Your task to perform on an android device: check battery use Image 0: 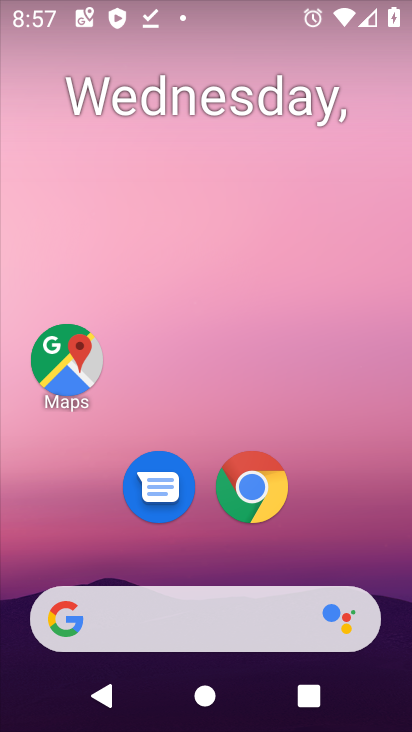
Step 0: drag from (247, 634) to (158, 190)
Your task to perform on an android device: check battery use Image 1: 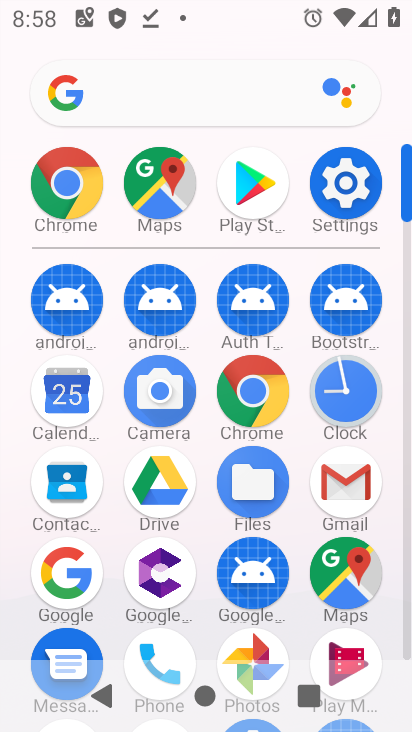
Step 1: click (327, 176)
Your task to perform on an android device: check battery use Image 2: 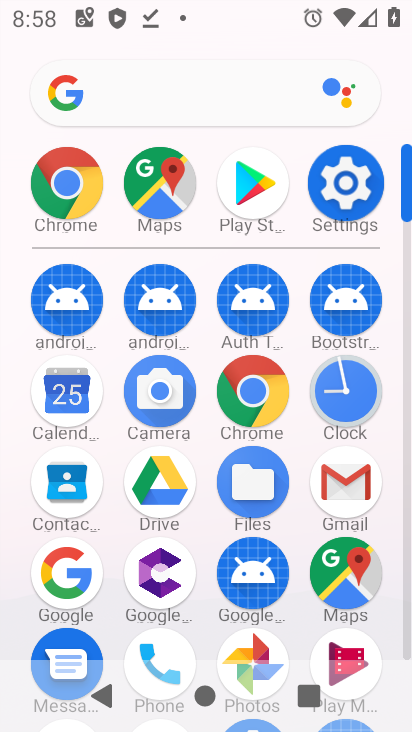
Step 2: click (327, 176)
Your task to perform on an android device: check battery use Image 3: 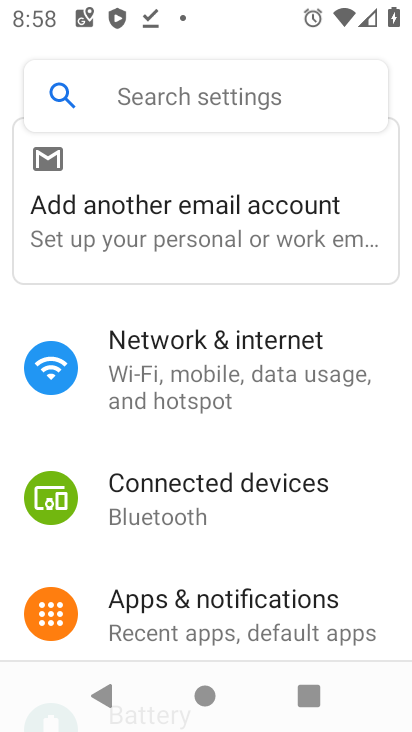
Step 3: drag from (205, 527) to (159, 153)
Your task to perform on an android device: check battery use Image 4: 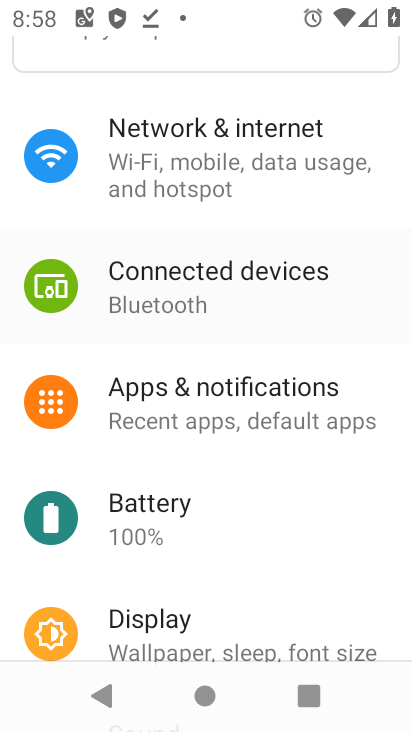
Step 4: drag from (179, 447) to (151, 70)
Your task to perform on an android device: check battery use Image 5: 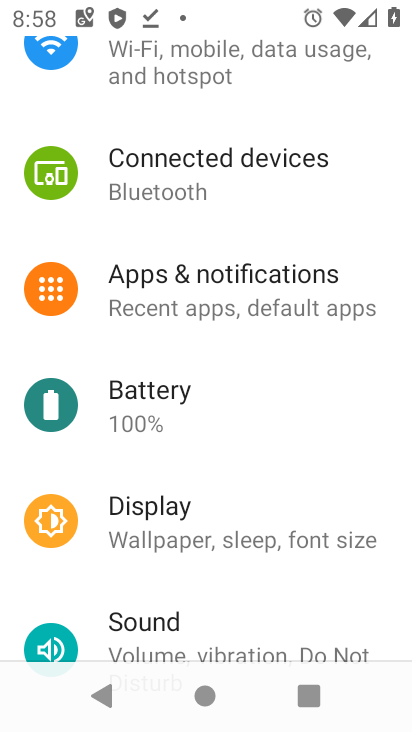
Step 5: drag from (145, 532) to (146, 315)
Your task to perform on an android device: check battery use Image 6: 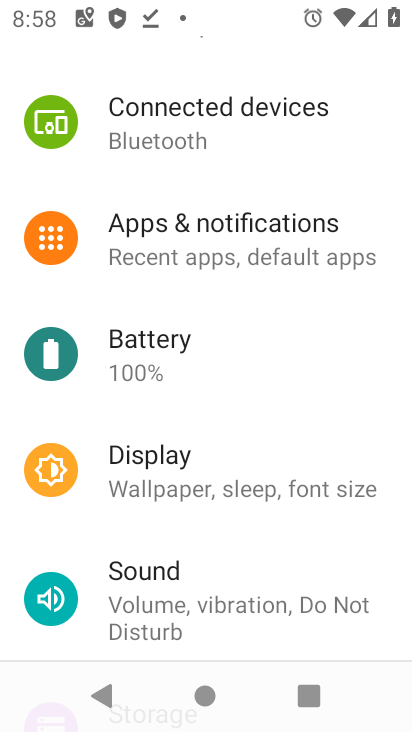
Step 6: click (151, 403)
Your task to perform on an android device: check battery use Image 7: 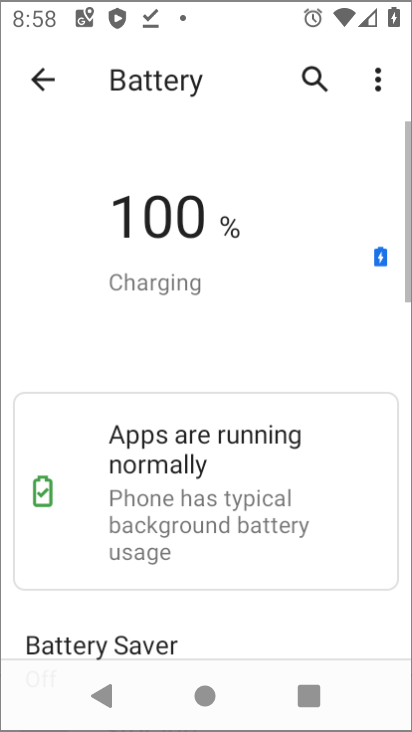
Step 7: click (138, 351)
Your task to perform on an android device: check battery use Image 8: 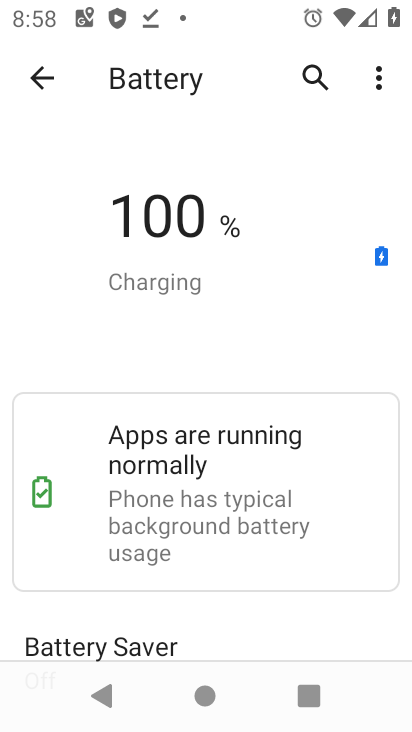
Step 8: task complete